Your task to perform on an android device: change the clock style Image 0: 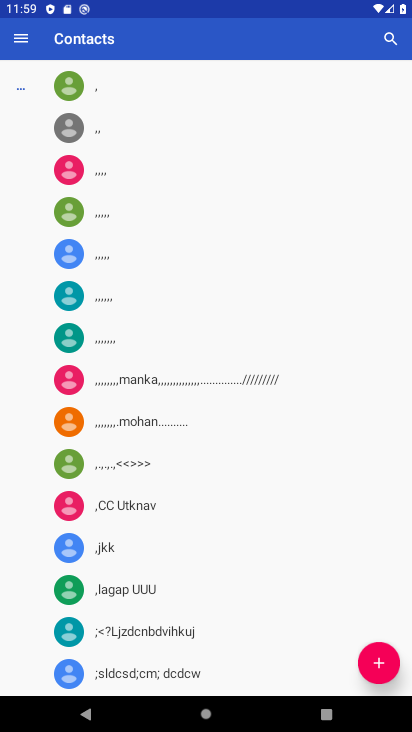
Step 0: press back button
Your task to perform on an android device: change the clock style Image 1: 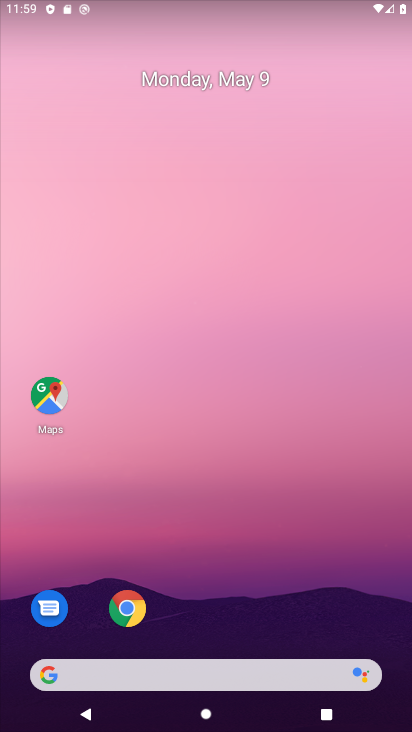
Step 1: drag from (273, 589) to (178, 0)
Your task to perform on an android device: change the clock style Image 2: 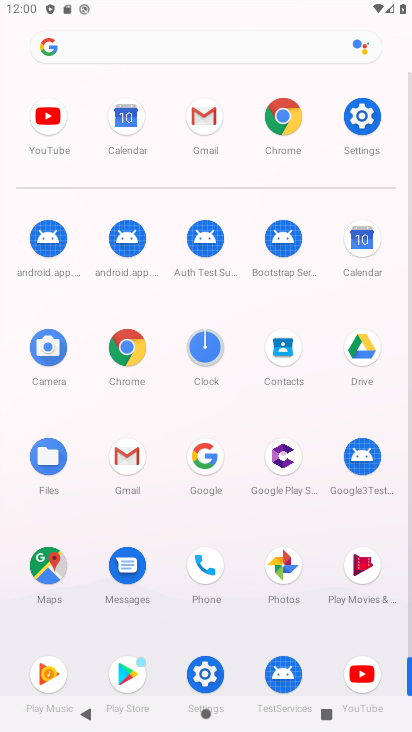
Step 2: drag from (6, 525) to (0, 201)
Your task to perform on an android device: change the clock style Image 3: 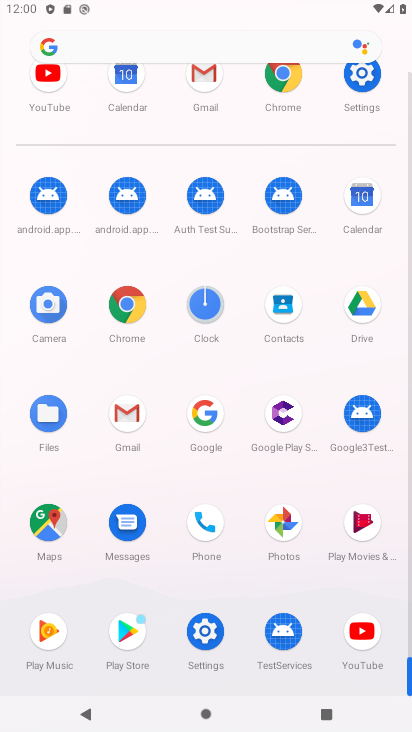
Step 3: click (204, 295)
Your task to perform on an android device: change the clock style Image 4: 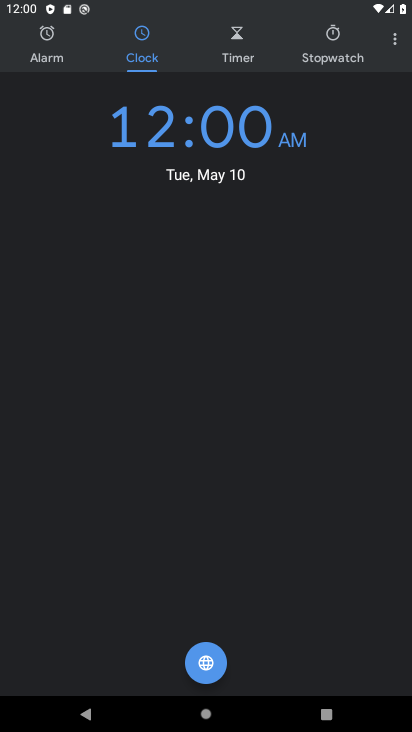
Step 4: drag from (392, 39) to (314, 69)
Your task to perform on an android device: change the clock style Image 5: 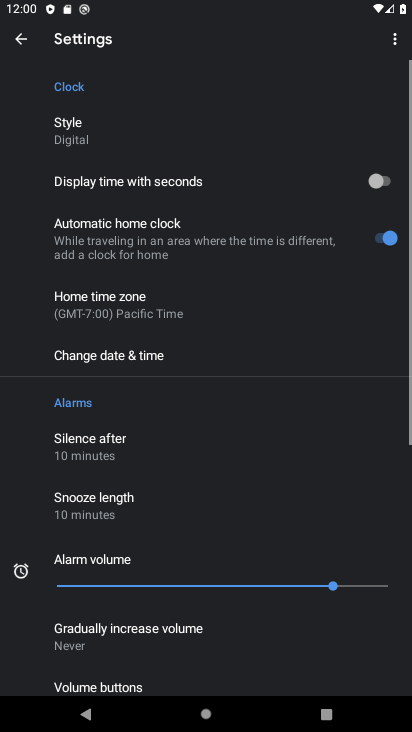
Step 5: click (101, 125)
Your task to perform on an android device: change the clock style Image 6: 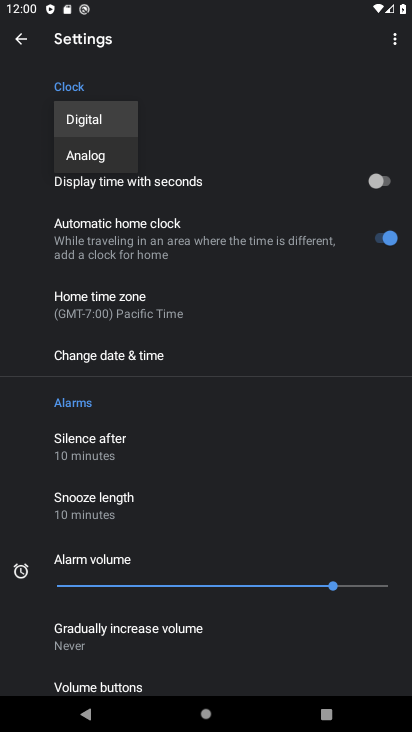
Step 6: click (92, 155)
Your task to perform on an android device: change the clock style Image 7: 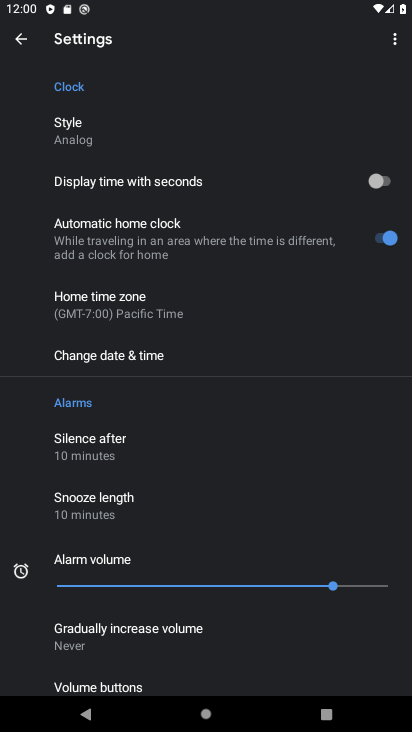
Step 7: task complete